Your task to perform on an android device: What's on my calendar tomorrow? Image 0: 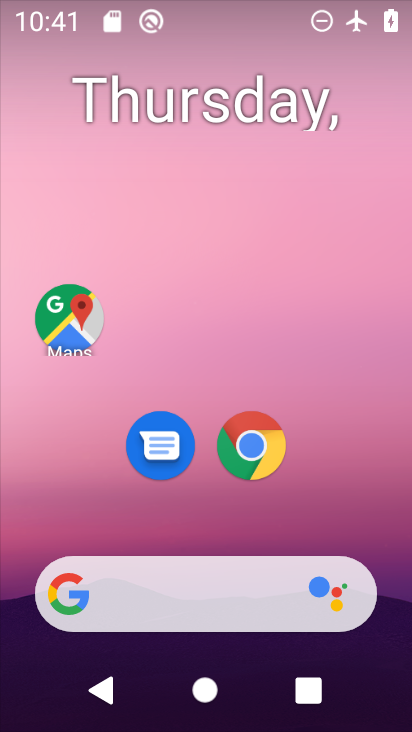
Step 0: drag from (203, 570) to (320, 36)
Your task to perform on an android device: What's on my calendar tomorrow? Image 1: 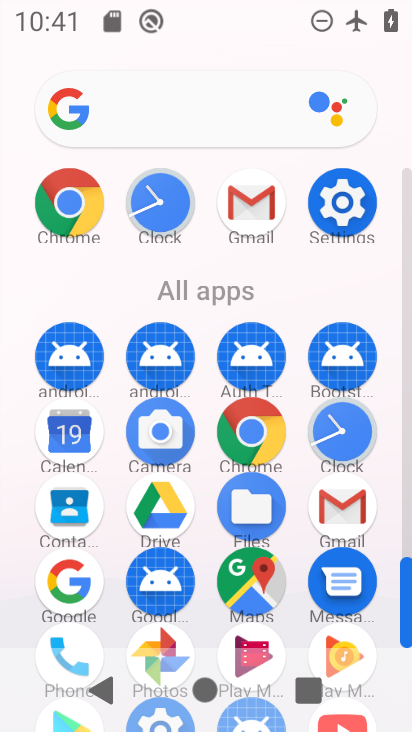
Step 1: click (68, 436)
Your task to perform on an android device: What's on my calendar tomorrow? Image 2: 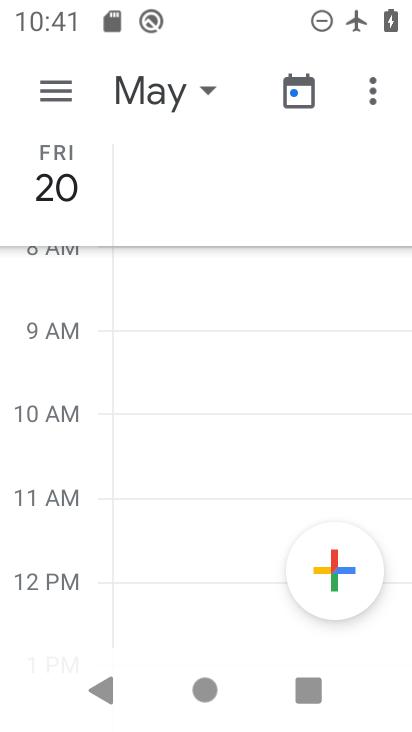
Step 2: click (300, 90)
Your task to perform on an android device: What's on my calendar tomorrow? Image 3: 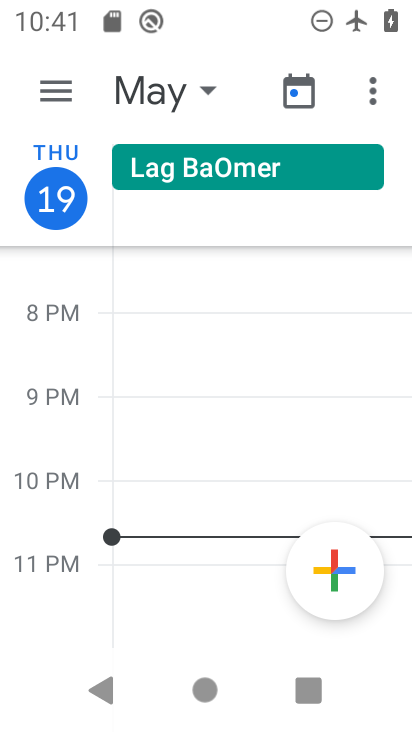
Step 3: click (69, 80)
Your task to perform on an android device: What's on my calendar tomorrow? Image 4: 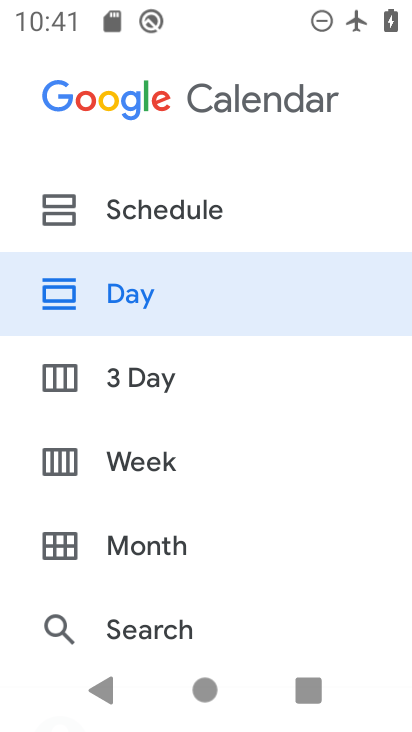
Step 4: click (153, 494)
Your task to perform on an android device: What's on my calendar tomorrow? Image 5: 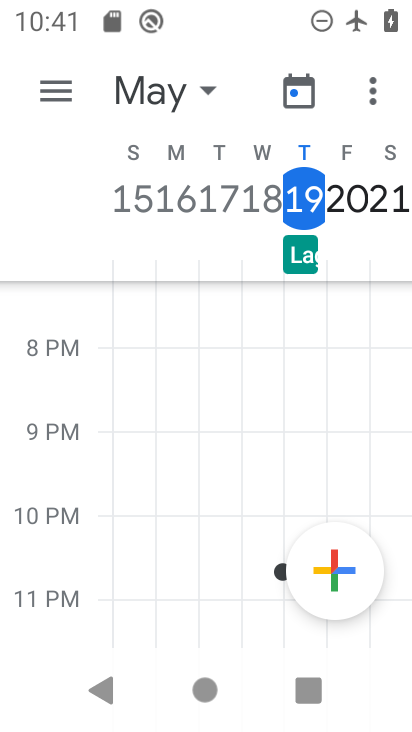
Step 5: click (333, 195)
Your task to perform on an android device: What's on my calendar tomorrow? Image 6: 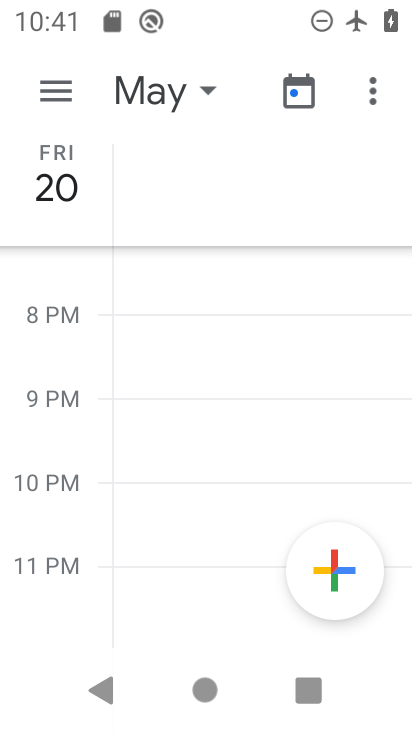
Step 6: task complete